Your task to perform on an android device: Open settings on Google Maps Image 0: 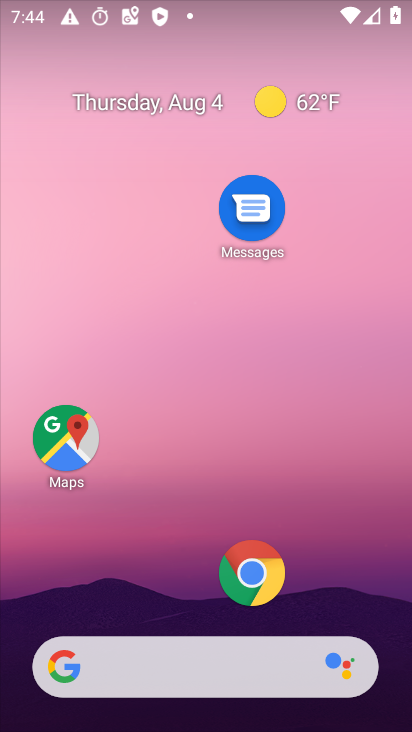
Step 0: press home button
Your task to perform on an android device: Open settings on Google Maps Image 1: 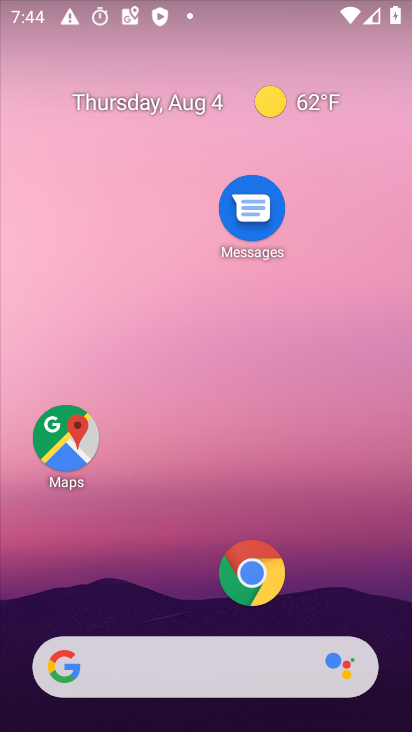
Step 1: drag from (174, 547) to (268, 75)
Your task to perform on an android device: Open settings on Google Maps Image 2: 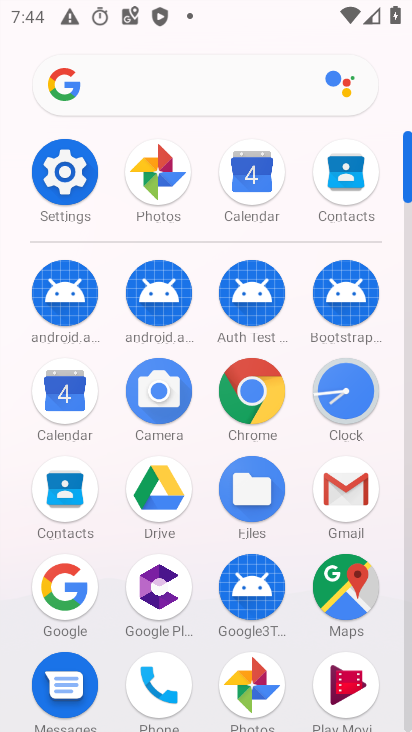
Step 2: click (78, 182)
Your task to perform on an android device: Open settings on Google Maps Image 3: 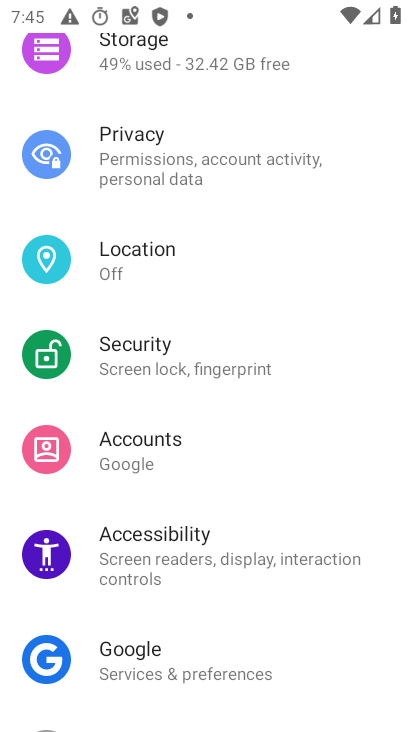
Step 3: task complete